Your task to perform on an android device: open chrome privacy settings Image 0: 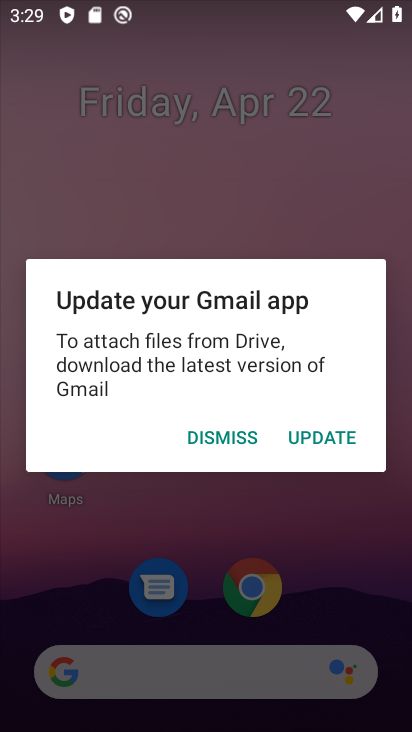
Step 0: press home button
Your task to perform on an android device: open chrome privacy settings Image 1: 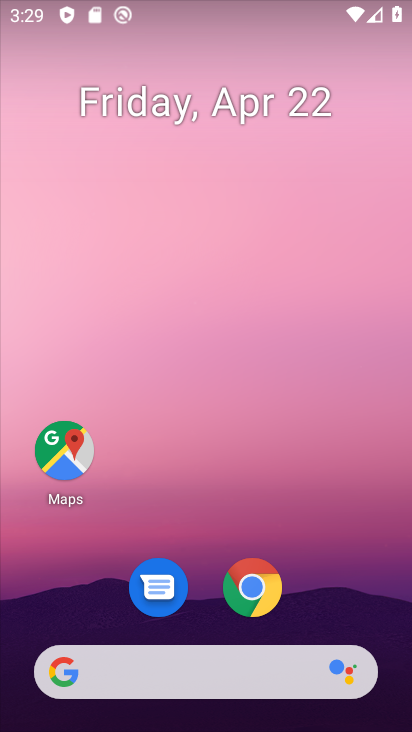
Step 1: click (253, 587)
Your task to perform on an android device: open chrome privacy settings Image 2: 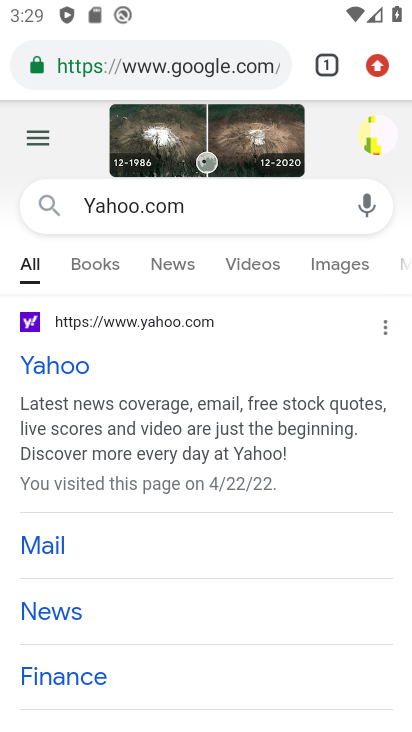
Step 2: click (381, 67)
Your task to perform on an android device: open chrome privacy settings Image 3: 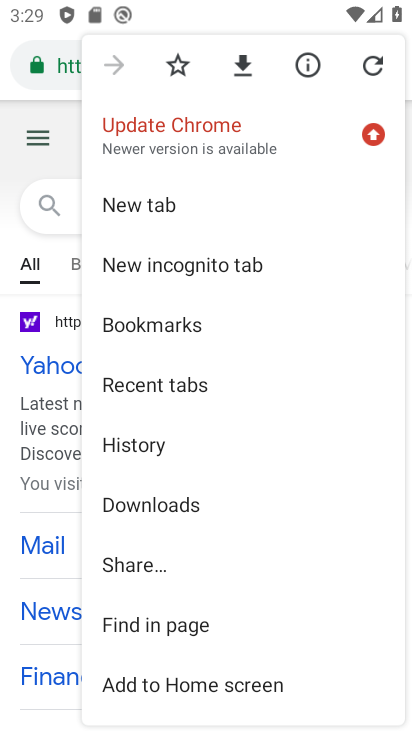
Step 3: drag from (219, 518) to (244, 341)
Your task to perform on an android device: open chrome privacy settings Image 4: 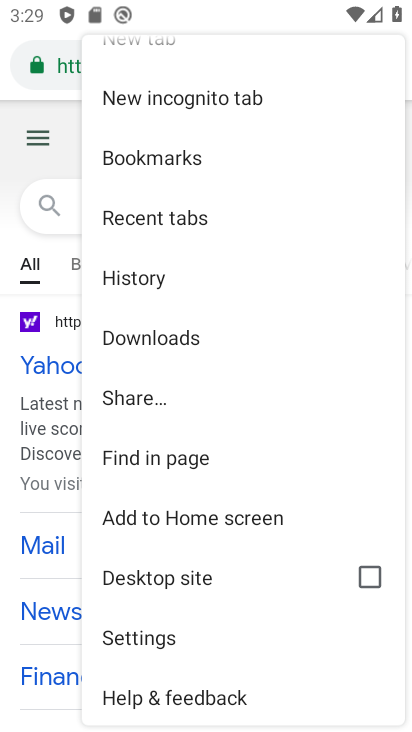
Step 4: drag from (223, 470) to (265, 307)
Your task to perform on an android device: open chrome privacy settings Image 5: 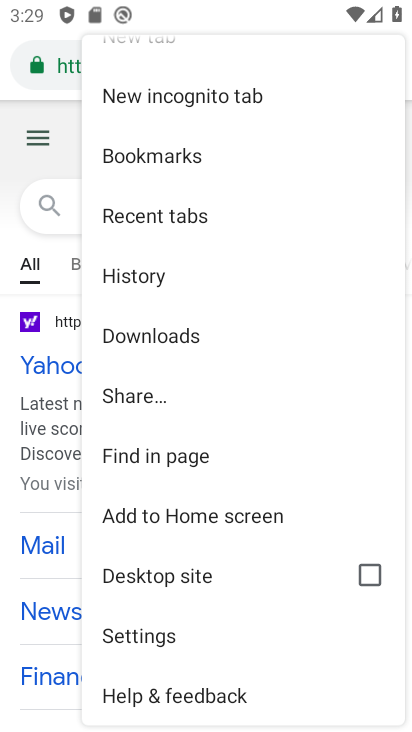
Step 5: click (158, 640)
Your task to perform on an android device: open chrome privacy settings Image 6: 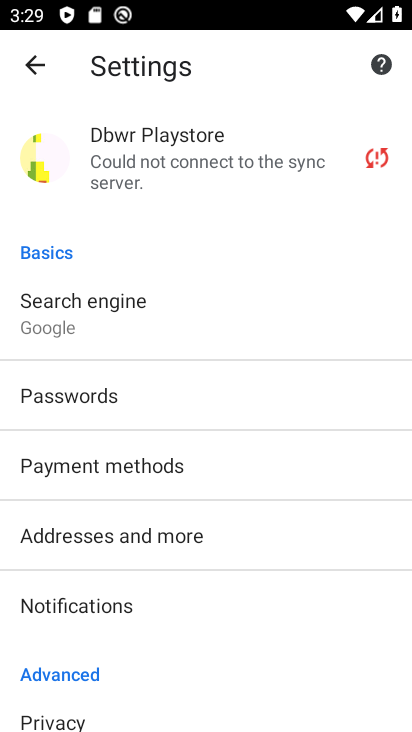
Step 6: drag from (137, 627) to (224, 402)
Your task to perform on an android device: open chrome privacy settings Image 7: 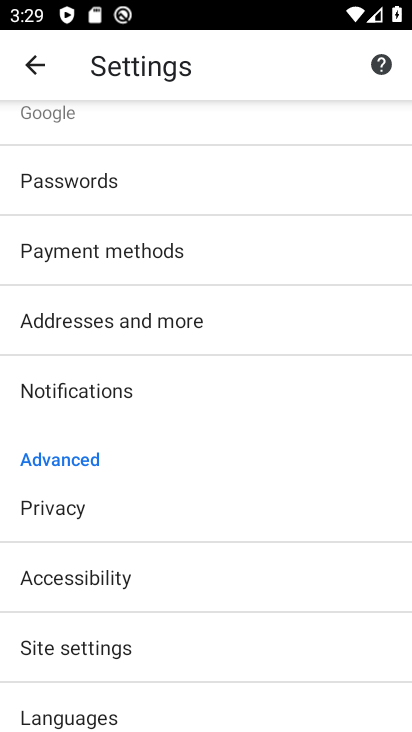
Step 7: click (69, 506)
Your task to perform on an android device: open chrome privacy settings Image 8: 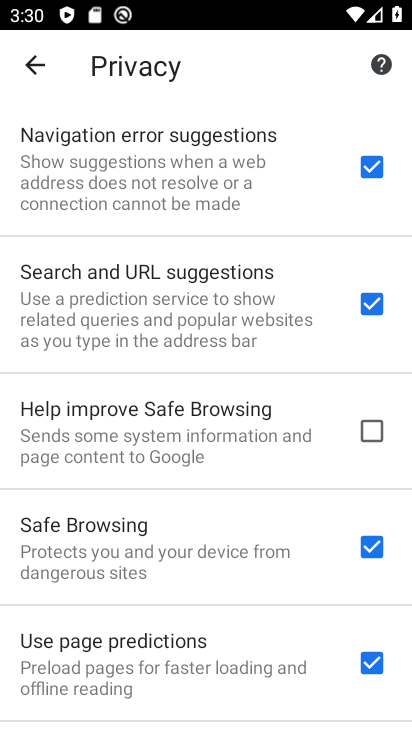
Step 8: task complete